Your task to perform on an android device: toggle sleep mode Image 0: 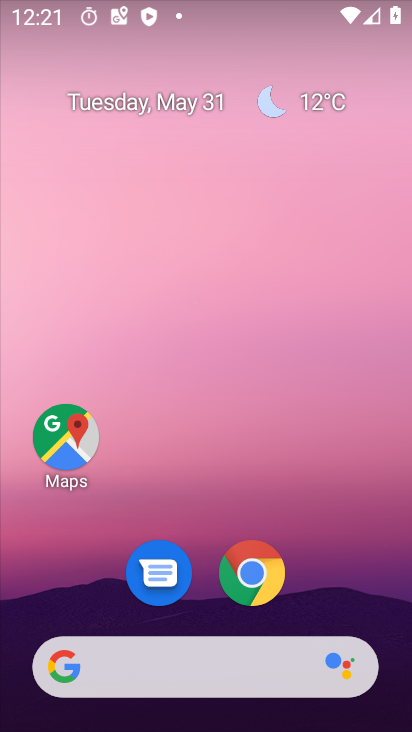
Step 0: drag from (342, 458) to (406, 124)
Your task to perform on an android device: toggle sleep mode Image 1: 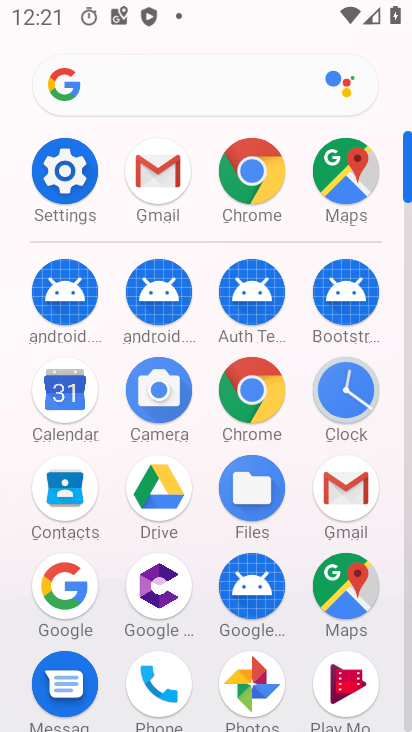
Step 1: click (72, 176)
Your task to perform on an android device: toggle sleep mode Image 2: 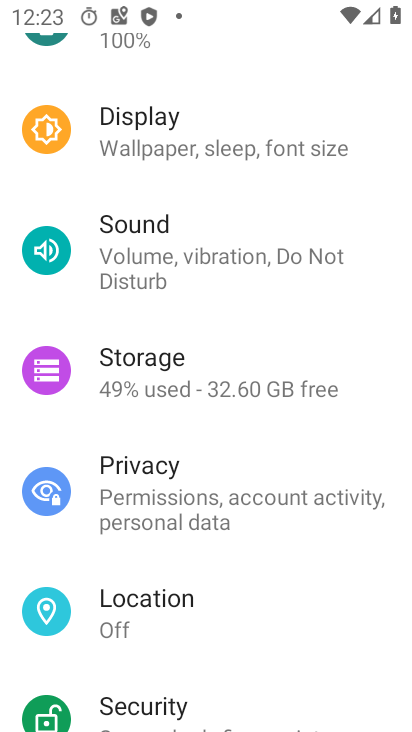
Step 2: click (138, 153)
Your task to perform on an android device: toggle sleep mode Image 3: 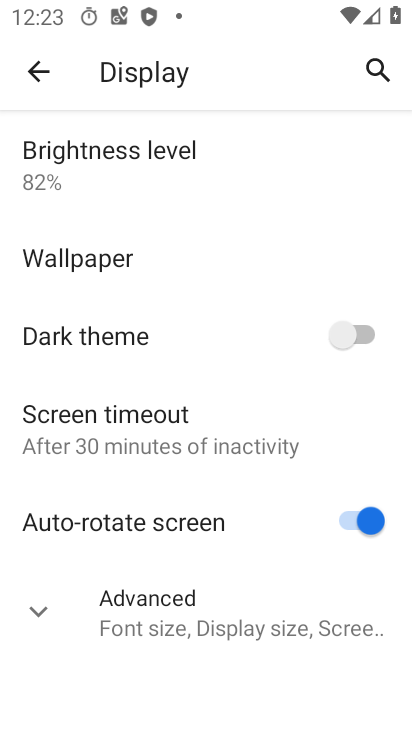
Step 3: click (95, 422)
Your task to perform on an android device: toggle sleep mode Image 4: 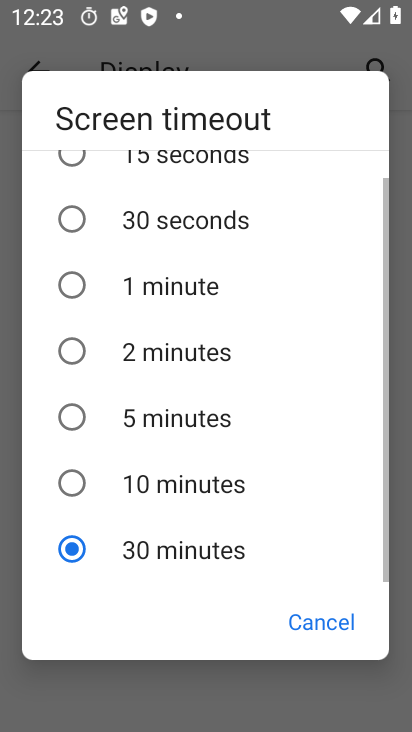
Step 4: click (126, 360)
Your task to perform on an android device: toggle sleep mode Image 5: 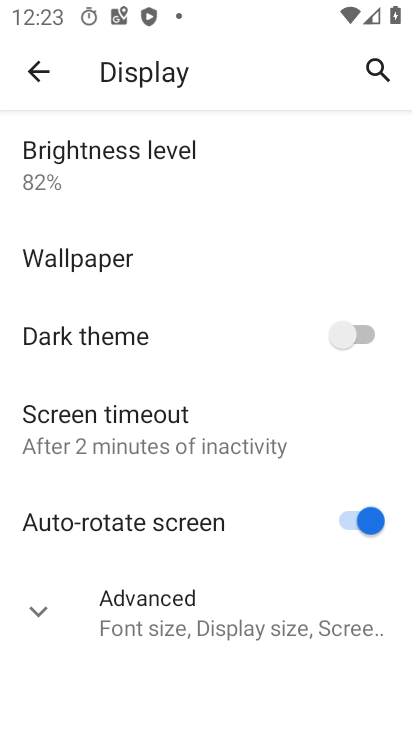
Step 5: task complete